Your task to perform on an android device: open chrome privacy settings Image 0: 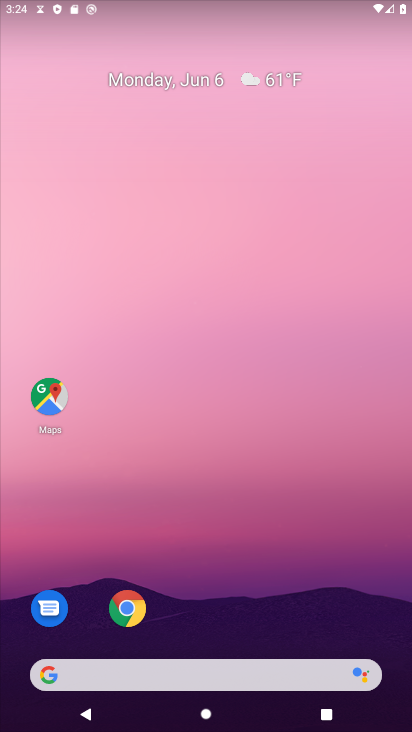
Step 0: click (119, 608)
Your task to perform on an android device: open chrome privacy settings Image 1: 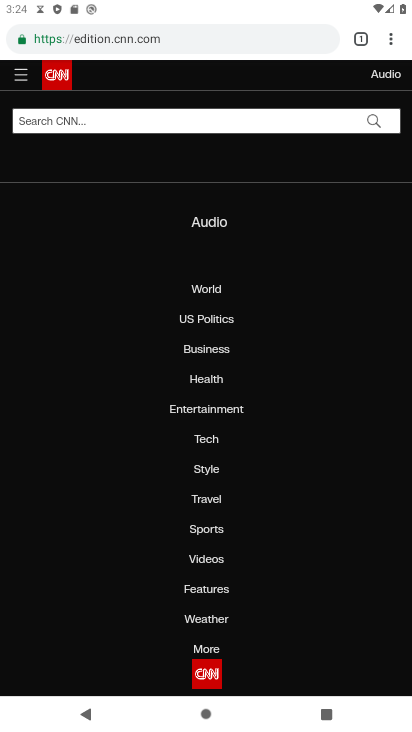
Step 1: click (388, 41)
Your task to perform on an android device: open chrome privacy settings Image 2: 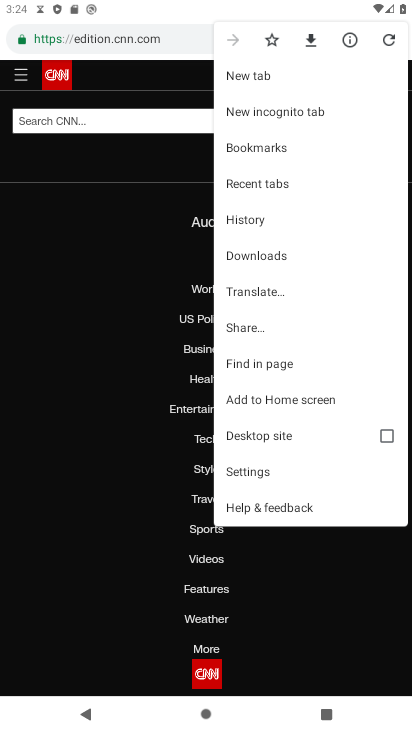
Step 2: click (261, 472)
Your task to perform on an android device: open chrome privacy settings Image 3: 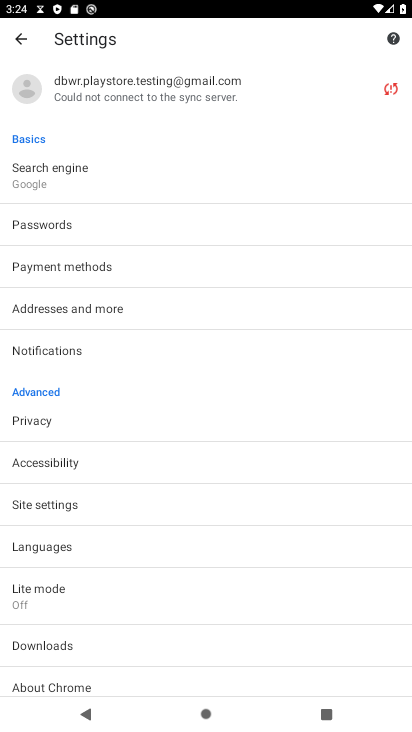
Step 3: click (100, 427)
Your task to perform on an android device: open chrome privacy settings Image 4: 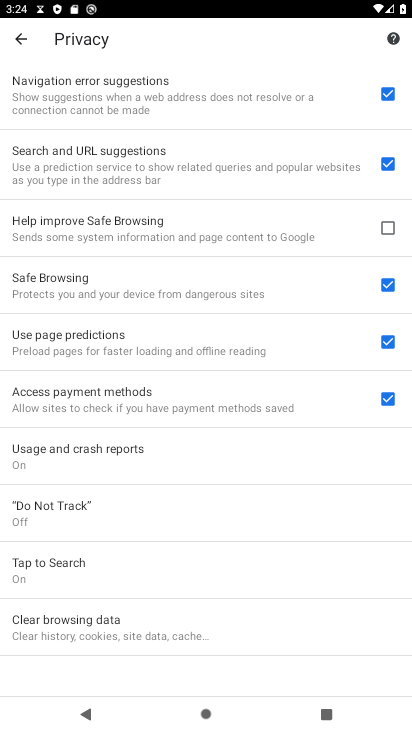
Step 4: task complete